Your task to perform on an android device: change notifications settings Image 0: 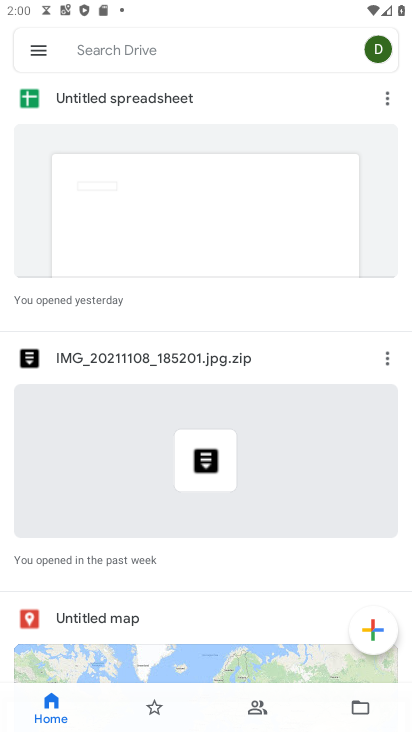
Step 0: press home button
Your task to perform on an android device: change notifications settings Image 1: 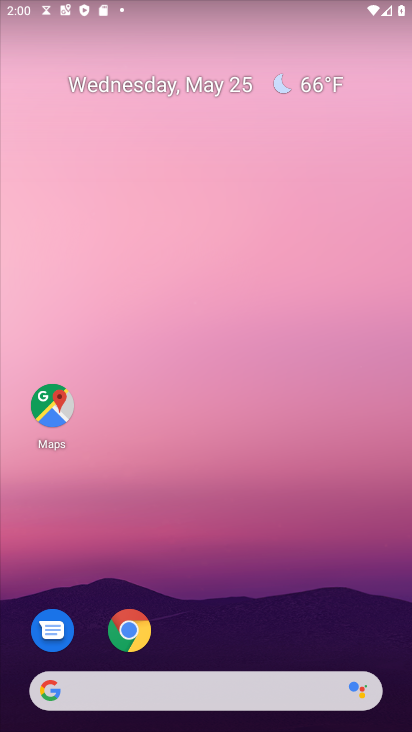
Step 1: drag from (217, 647) to (233, 35)
Your task to perform on an android device: change notifications settings Image 2: 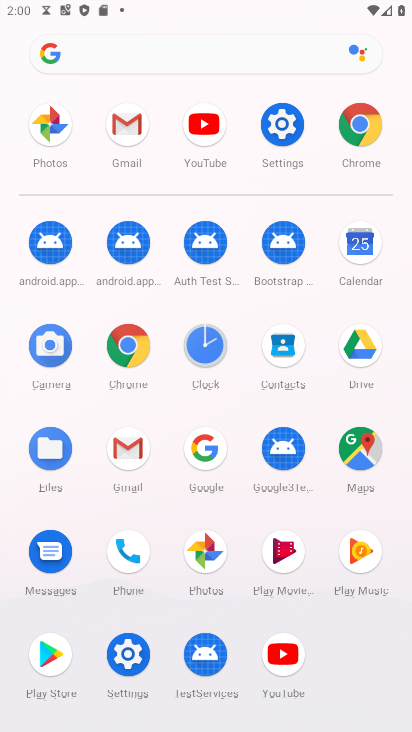
Step 2: click (276, 117)
Your task to perform on an android device: change notifications settings Image 3: 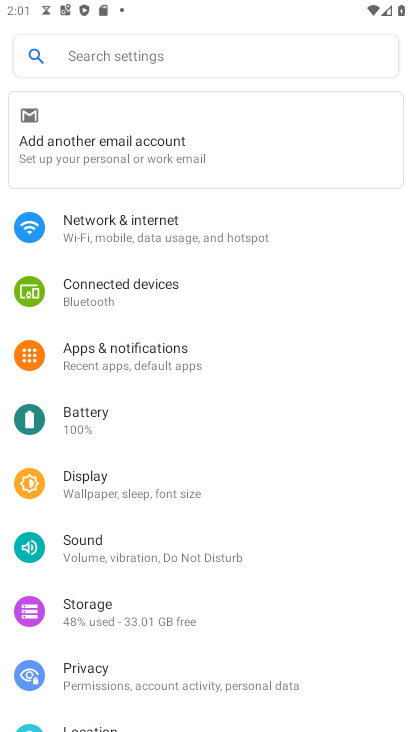
Step 3: click (196, 352)
Your task to perform on an android device: change notifications settings Image 4: 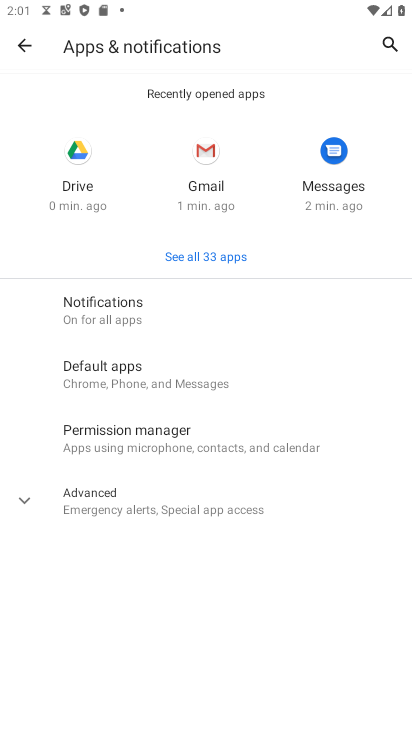
Step 4: click (152, 307)
Your task to perform on an android device: change notifications settings Image 5: 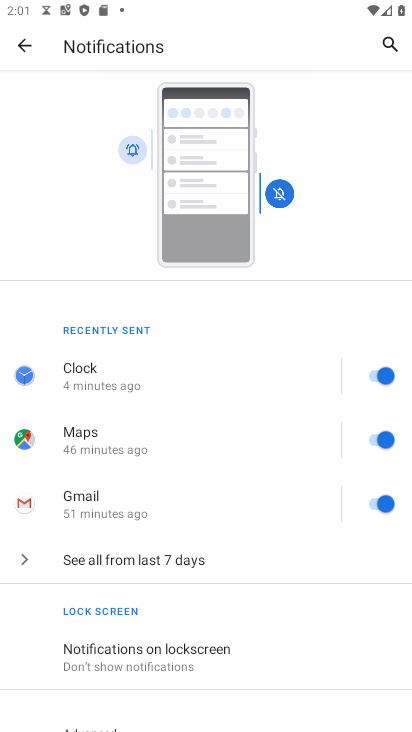
Step 5: drag from (226, 682) to (224, 332)
Your task to perform on an android device: change notifications settings Image 6: 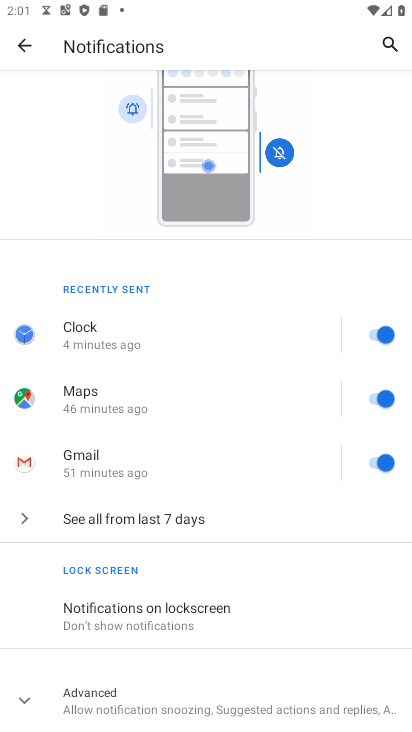
Step 6: click (26, 695)
Your task to perform on an android device: change notifications settings Image 7: 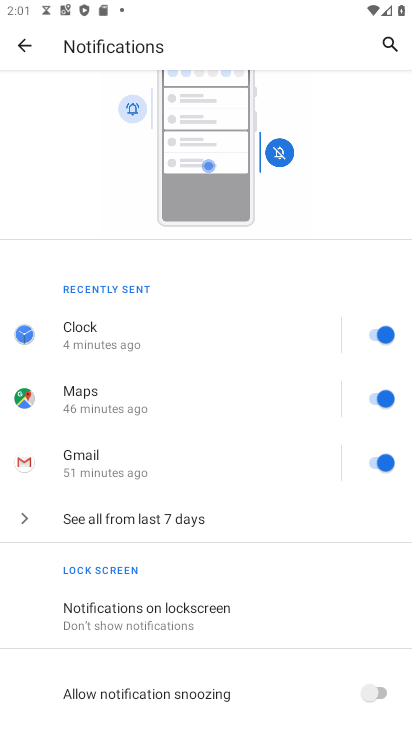
Step 7: click (371, 330)
Your task to perform on an android device: change notifications settings Image 8: 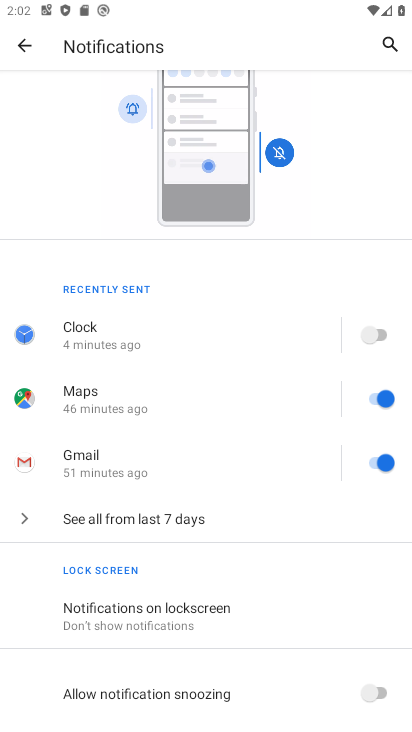
Step 8: click (375, 394)
Your task to perform on an android device: change notifications settings Image 9: 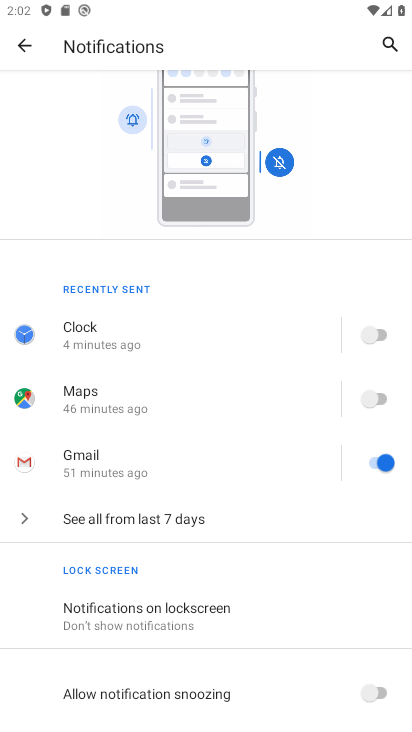
Step 9: click (367, 454)
Your task to perform on an android device: change notifications settings Image 10: 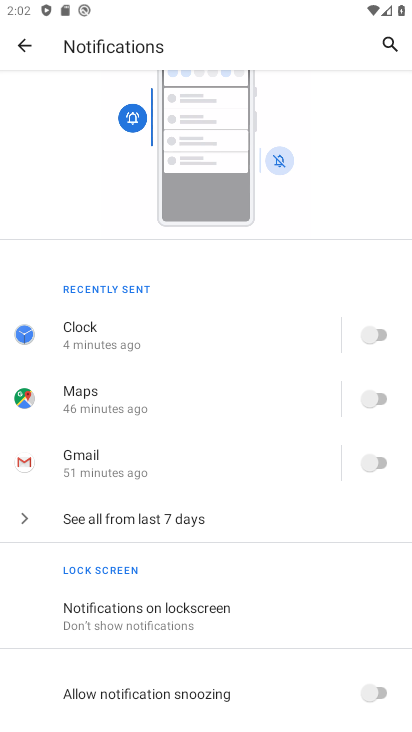
Step 10: click (220, 614)
Your task to perform on an android device: change notifications settings Image 11: 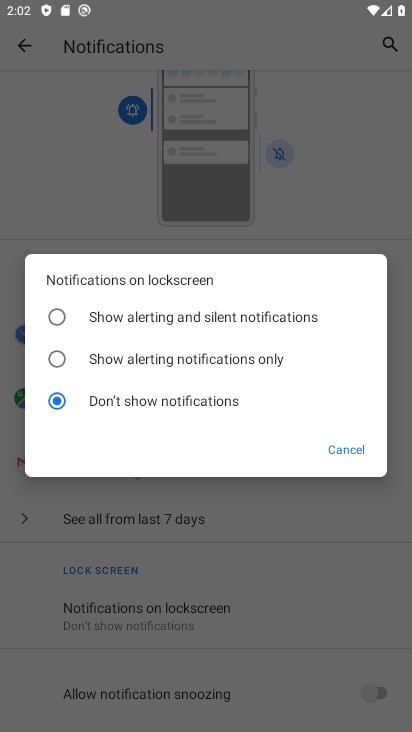
Step 11: click (55, 314)
Your task to perform on an android device: change notifications settings Image 12: 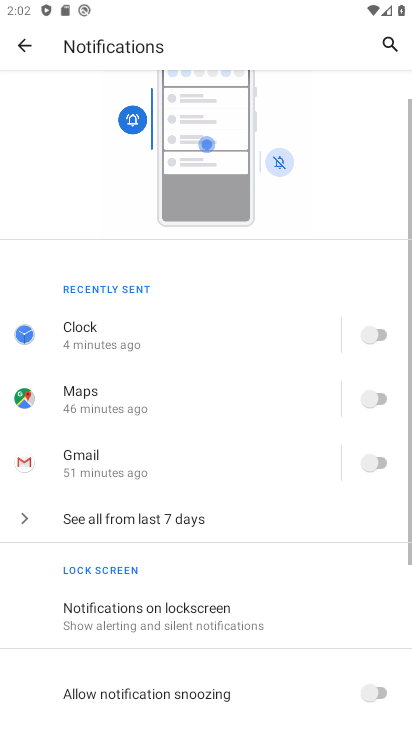
Step 12: task complete